Your task to perform on an android device: change timer sound Image 0: 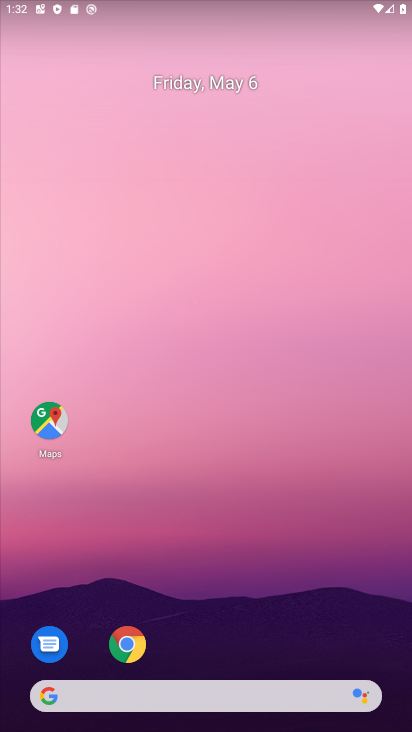
Step 0: drag from (192, 638) to (378, 88)
Your task to perform on an android device: change timer sound Image 1: 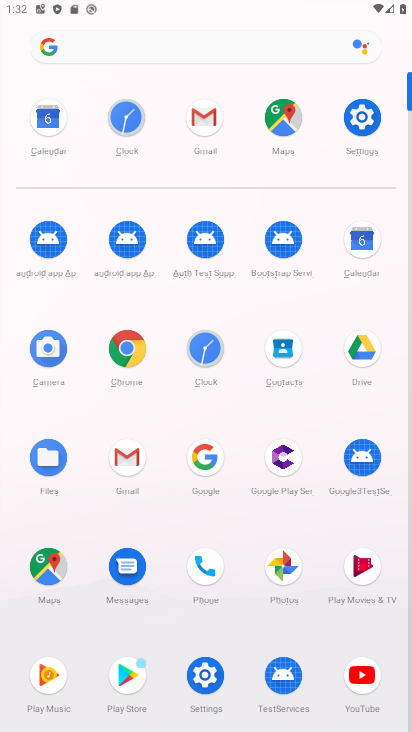
Step 1: click (197, 339)
Your task to perform on an android device: change timer sound Image 2: 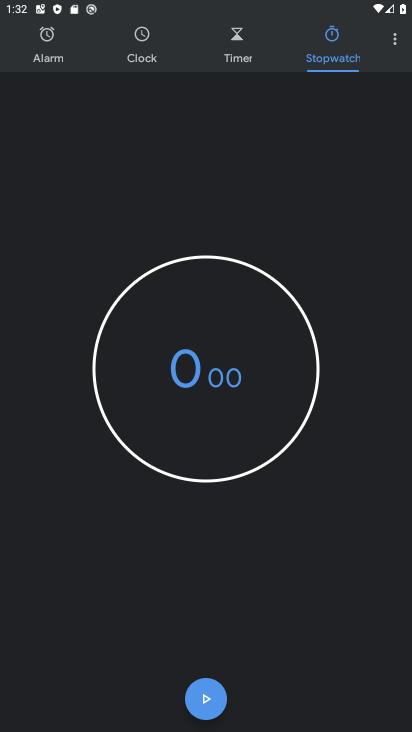
Step 2: click (388, 35)
Your task to perform on an android device: change timer sound Image 3: 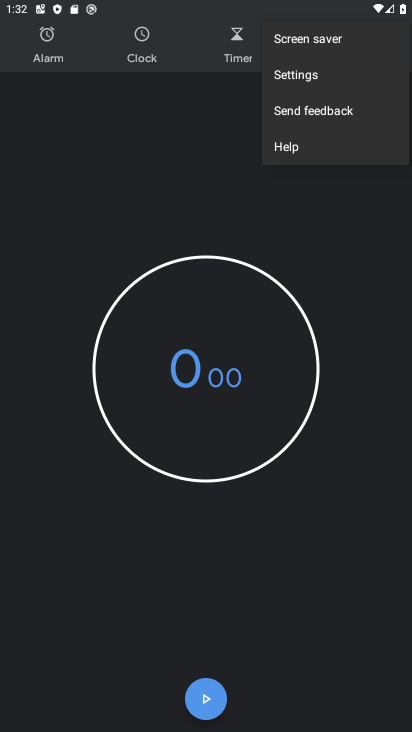
Step 3: click (313, 79)
Your task to perform on an android device: change timer sound Image 4: 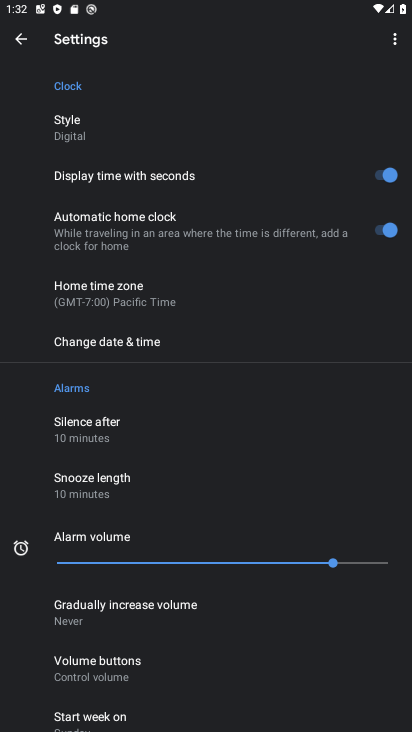
Step 4: drag from (128, 625) to (161, 131)
Your task to perform on an android device: change timer sound Image 5: 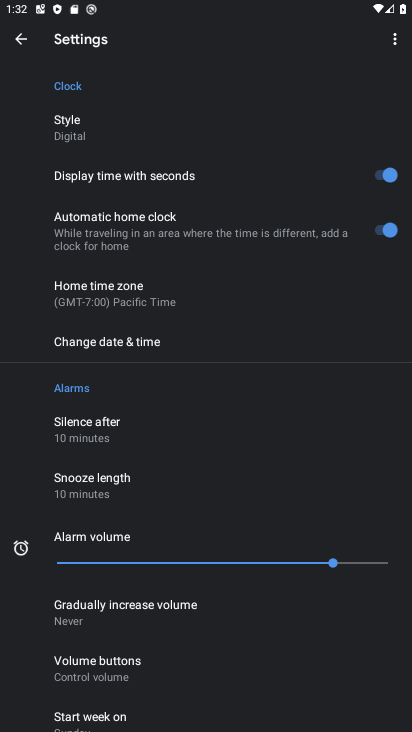
Step 5: drag from (154, 684) to (165, 73)
Your task to perform on an android device: change timer sound Image 6: 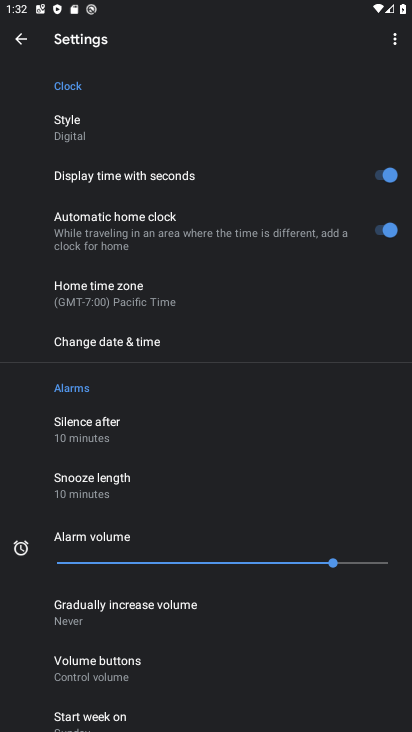
Step 6: drag from (275, 654) to (372, 4)
Your task to perform on an android device: change timer sound Image 7: 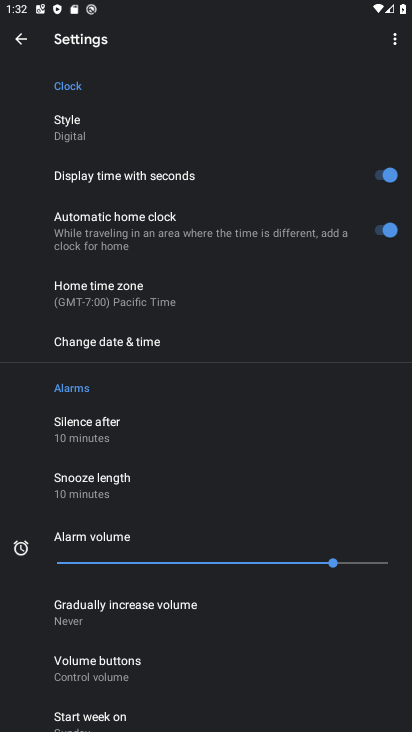
Step 7: drag from (162, 692) to (221, 0)
Your task to perform on an android device: change timer sound Image 8: 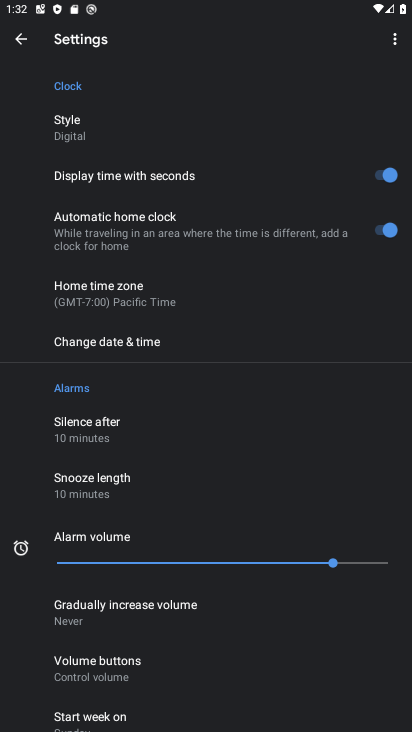
Step 8: drag from (258, 426) to (21, 728)
Your task to perform on an android device: change timer sound Image 9: 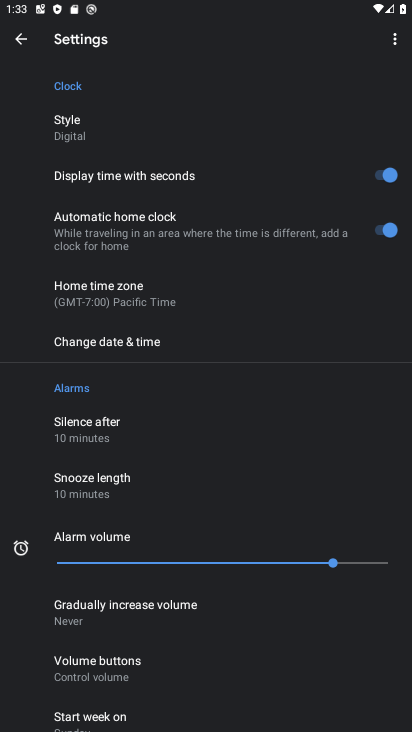
Step 9: drag from (32, 724) to (40, 281)
Your task to perform on an android device: change timer sound Image 10: 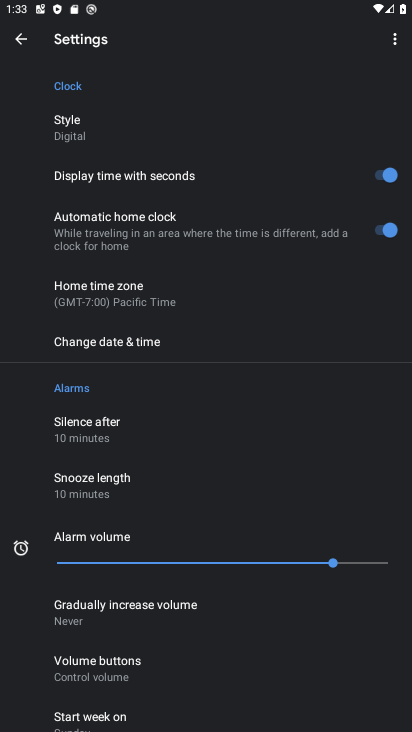
Step 10: drag from (202, 663) to (172, 16)
Your task to perform on an android device: change timer sound Image 11: 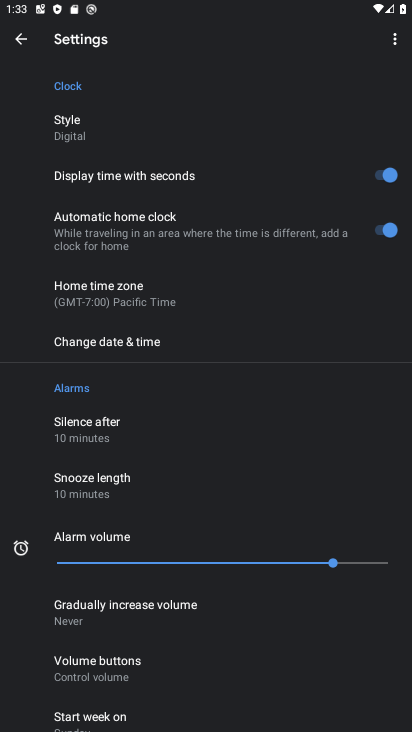
Step 11: drag from (257, 600) to (153, 5)
Your task to perform on an android device: change timer sound Image 12: 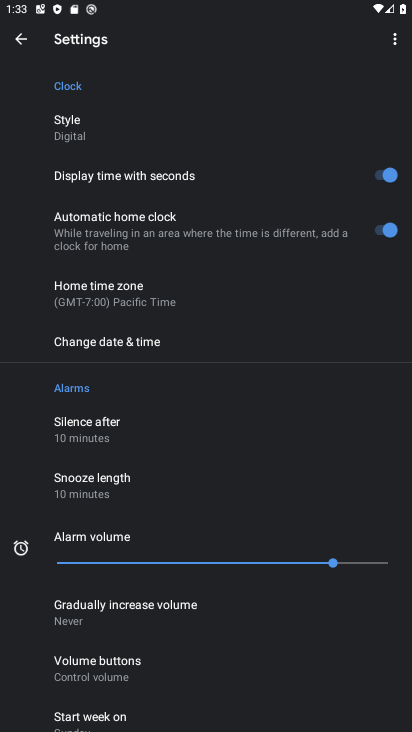
Step 12: drag from (252, 677) to (221, 67)
Your task to perform on an android device: change timer sound Image 13: 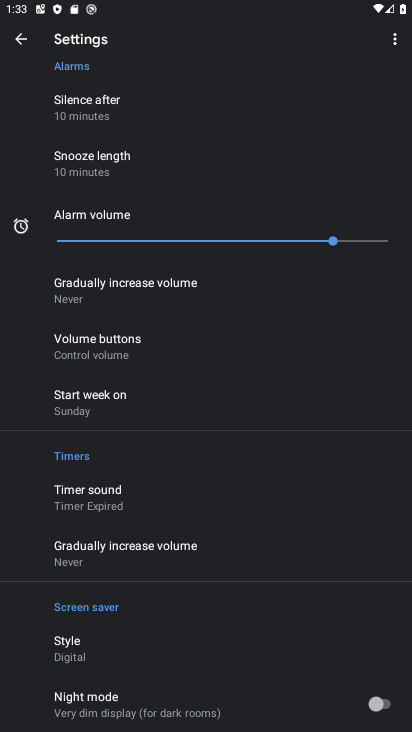
Step 13: click (99, 501)
Your task to perform on an android device: change timer sound Image 14: 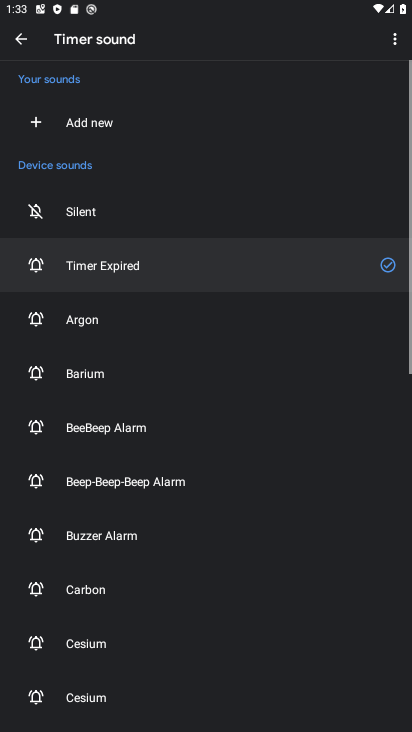
Step 14: click (244, 537)
Your task to perform on an android device: change timer sound Image 15: 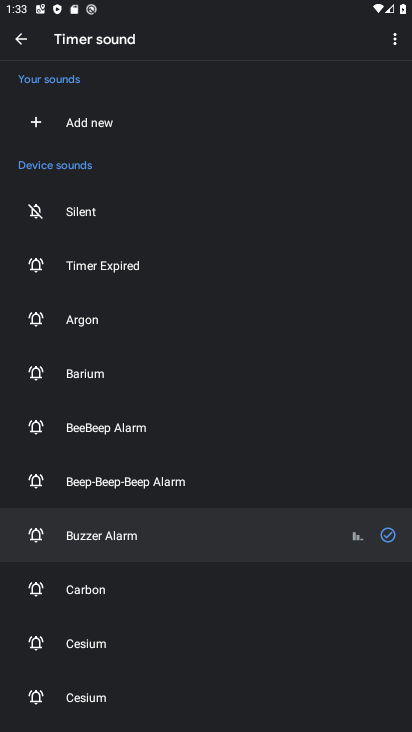
Step 15: task complete